Your task to perform on an android device: Search for "amazon basics triple a" on amazon, select the first entry, and add it to the cart. Image 0: 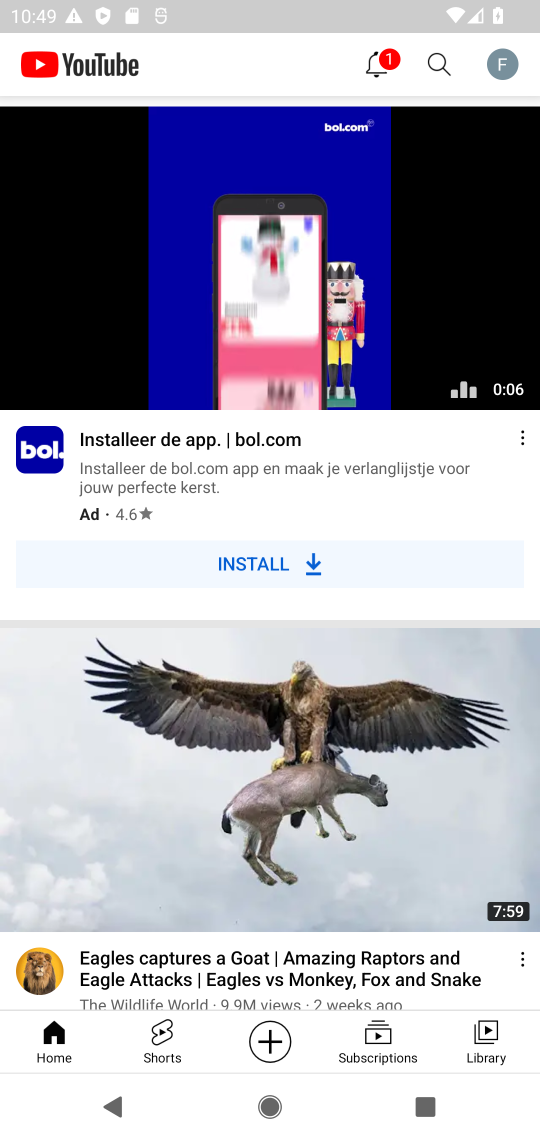
Step 0: press home button
Your task to perform on an android device: Search for "amazon basics triple a" on amazon, select the first entry, and add it to the cart. Image 1: 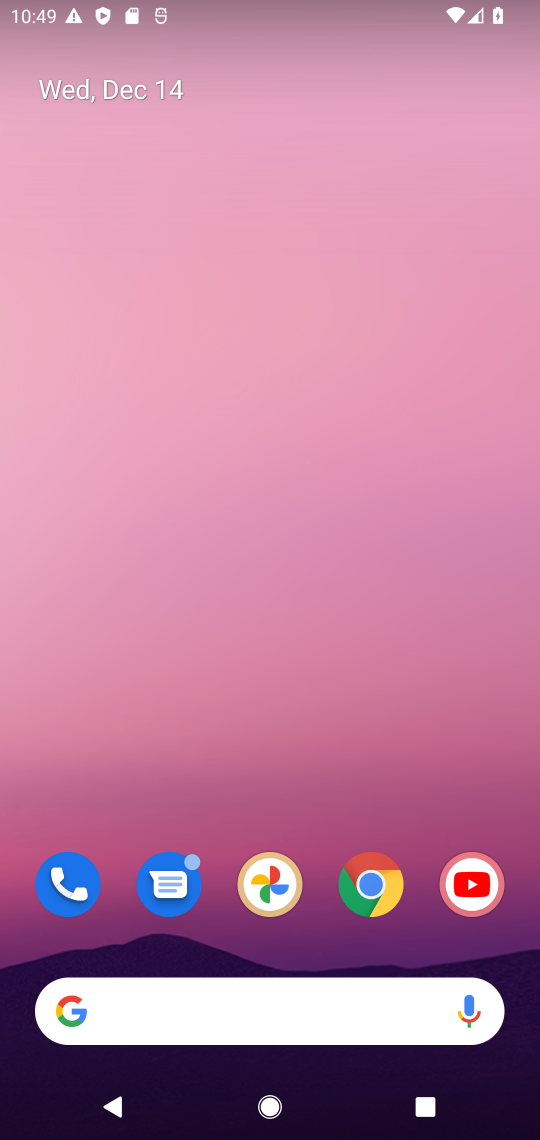
Step 1: click (368, 889)
Your task to perform on an android device: Search for "amazon basics triple a" on amazon, select the first entry, and add it to the cart. Image 2: 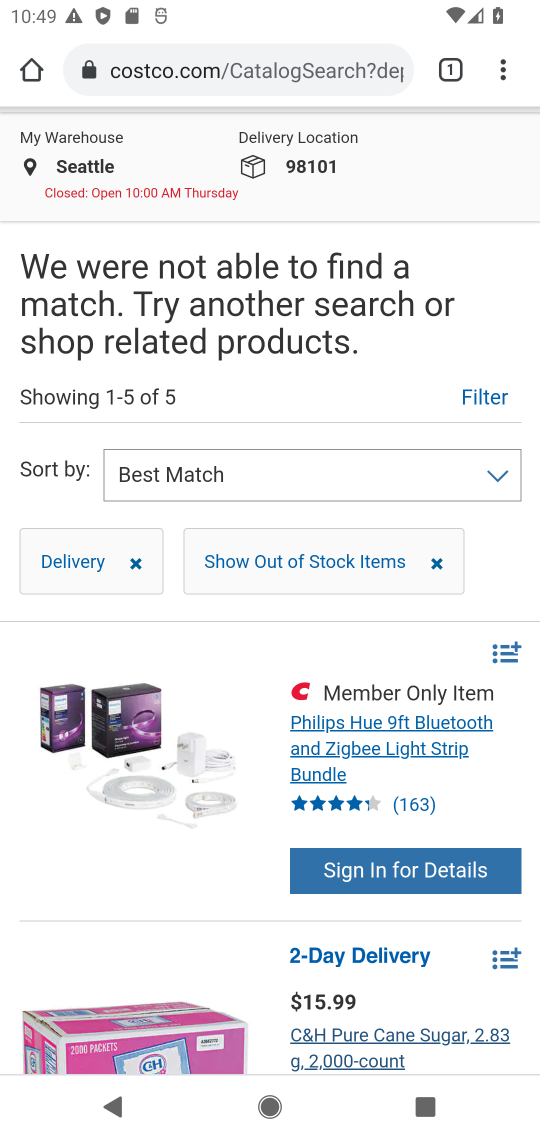
Step 2: click (180, 73)
Your task to perform on an android device: Search for "amazon basics triple a" on amazon, select the first entry, and add it to the cart. Image 3: 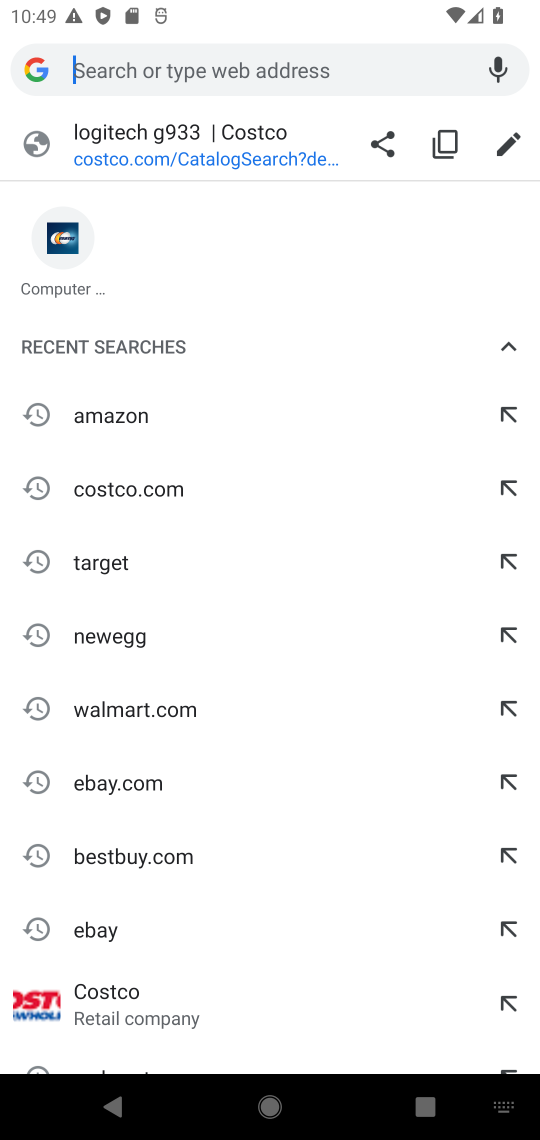
Step 3: type "amazon"
Your task to perform on an android device: Search for "amazon basics triple a" on amazon, select the first entry, and add it to the cart. Image 4: 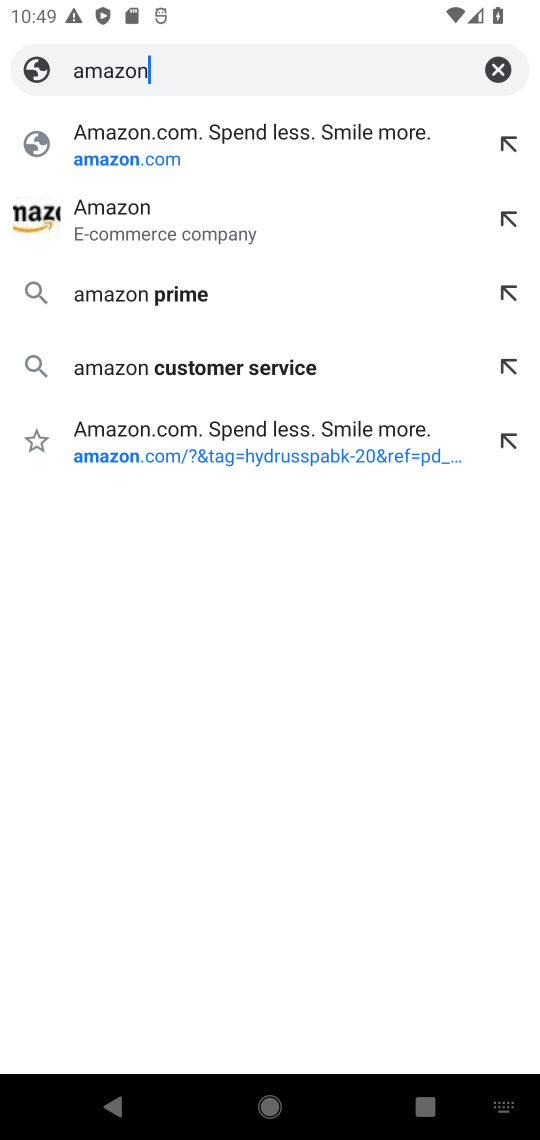
Step 4: click (233, 151)
Your task to perform on an android device: Search for "amazon basics triple a" on amazon, select the first entry, and add it to the cart. Image 5: 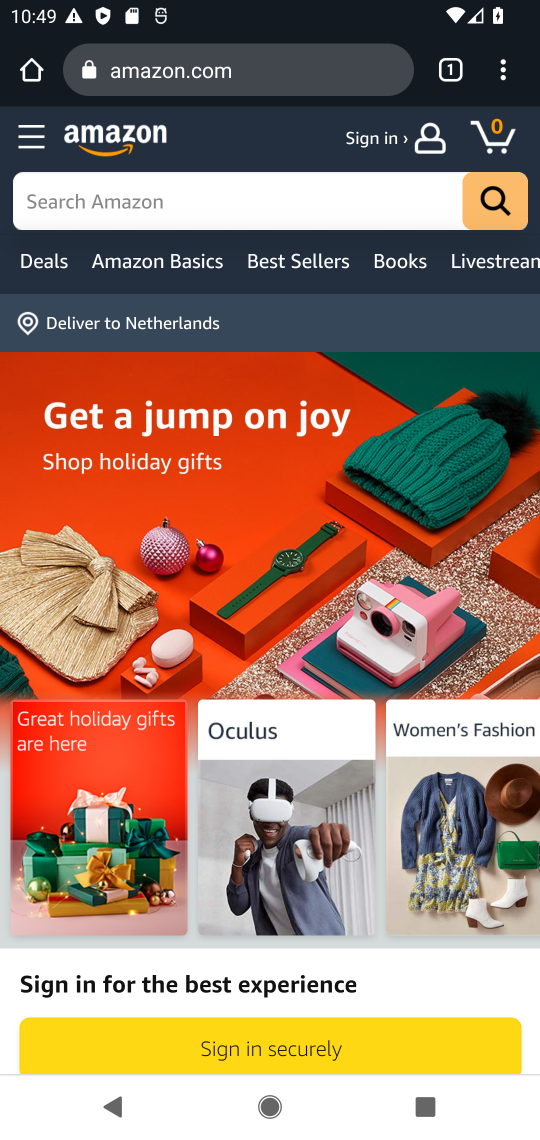
Step 5: click (314, 180)
Your task to perform on an android device: Search for "amazon basics triple a" on amazon, select the first entry, and add it to the cart. Image 6: 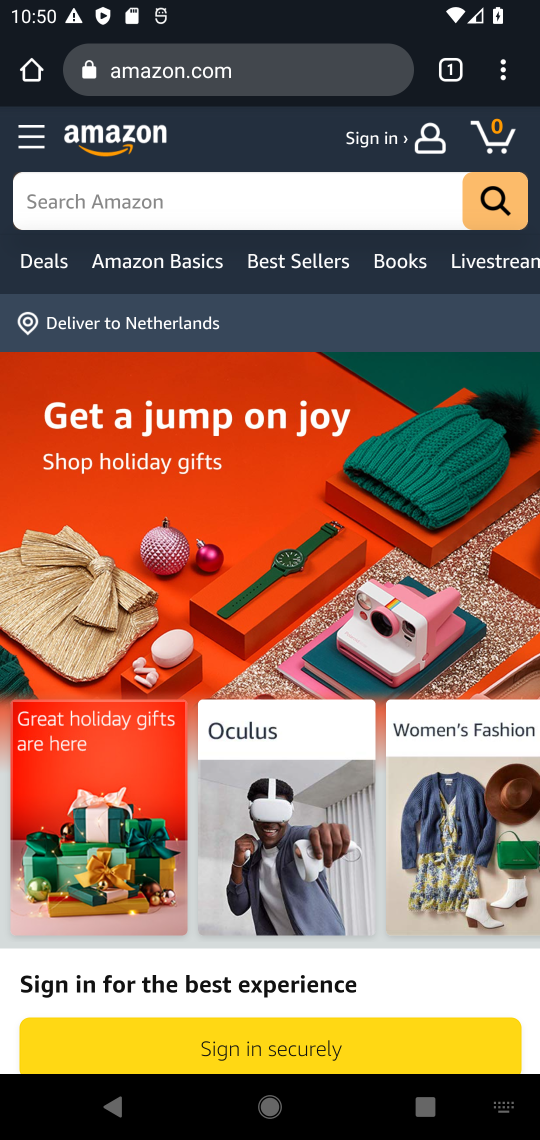
Step 6: type "amazon basics triple a"
Your task to perform on an android device: Search for "amazon basics triple a" on amazon, select the first entry, and add it to the cart. Image 7: 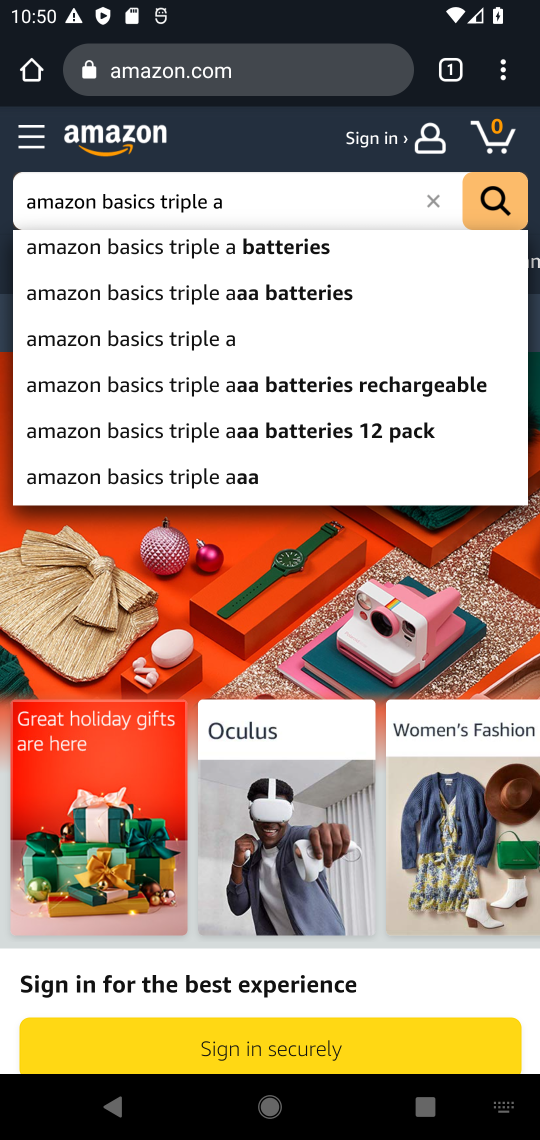
Step 7: click (495, 217)
Your task to perform on an android device: Search for "amazon basics triple a" on amazon, select the first entry, and add it to the cart. Image 8: 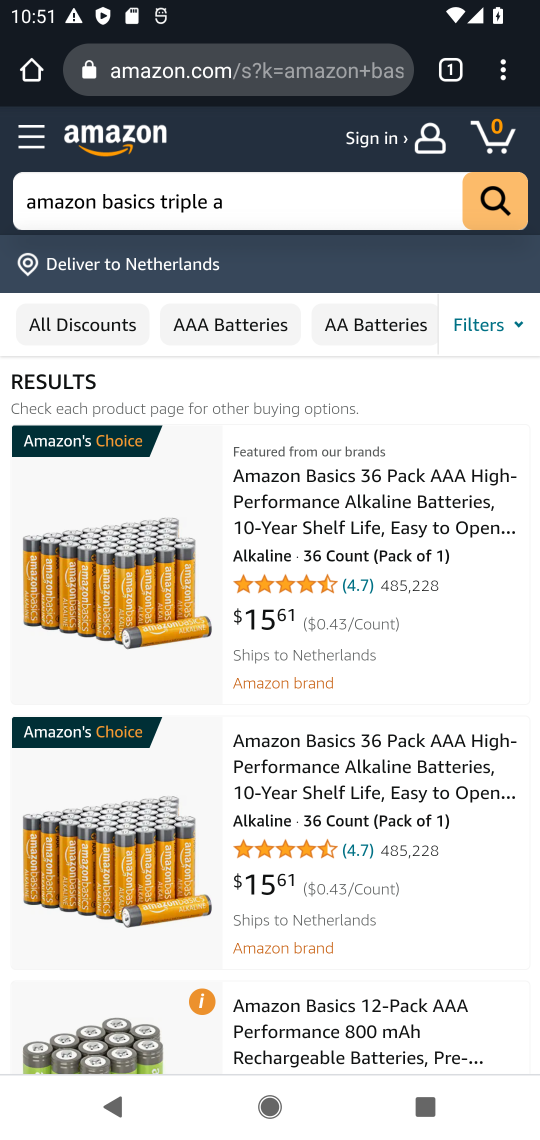
Step 8: click (317, 495)
Your task to perform on an android device: Search for "amazon basics triple a" on amazon, select the first entry, and add it to the cart. Image 9: 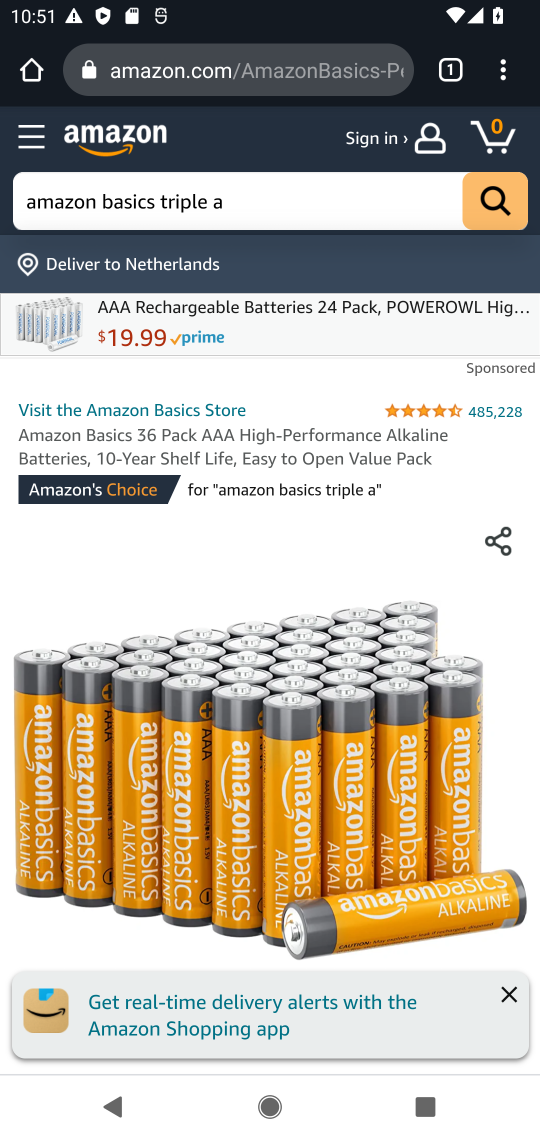
Step 9: drag from (258, 661) to (265, 6)
Your task to perform on an android device: Search for "amazon basics triple a" on amazon, select the first entry, and add it to the cart. Image 10: 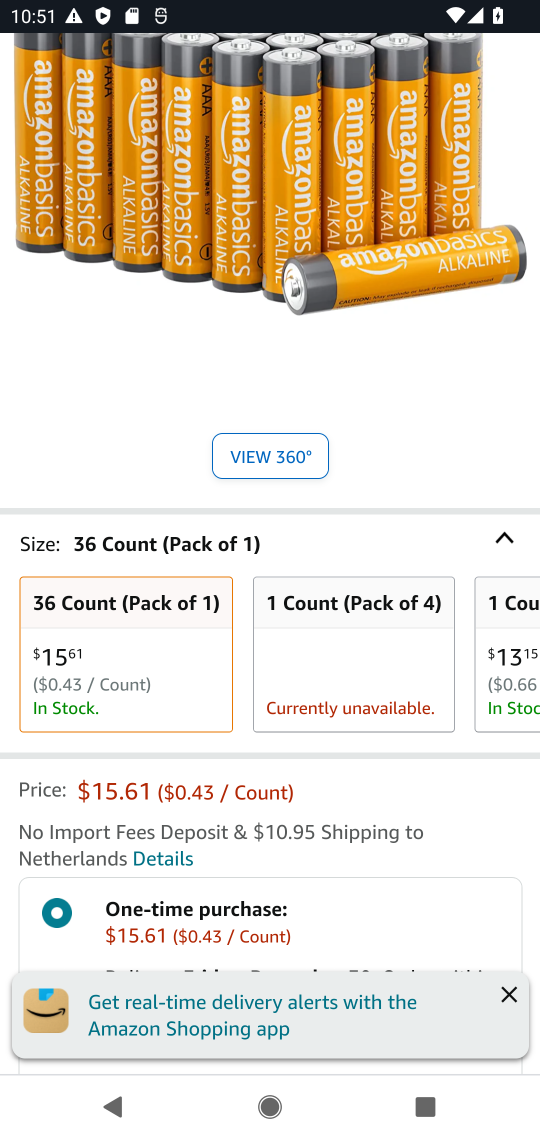
Step 10: drag from (281, 381) to (312, 70)
Your task to perform on an android device: Search for "amazon basics triple a" on amazon, select the first entry, and add it to the cart. Image 11: 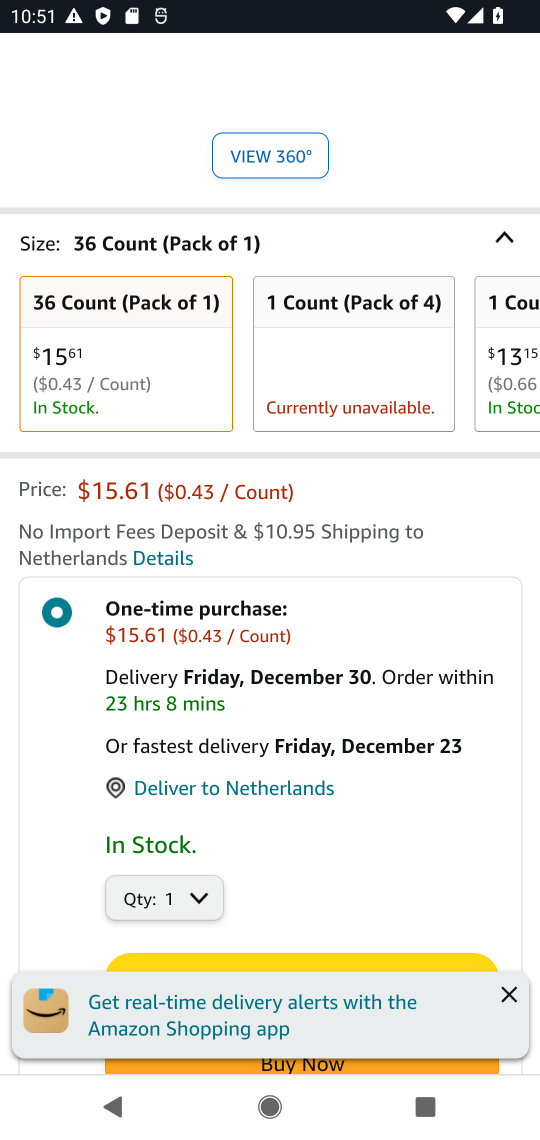
Step 11: click (512, 999)
Your task to perform on an android device: Search for "amazon basics triple a" on amazon, select the first entry, and add it to the cart. Image 12: 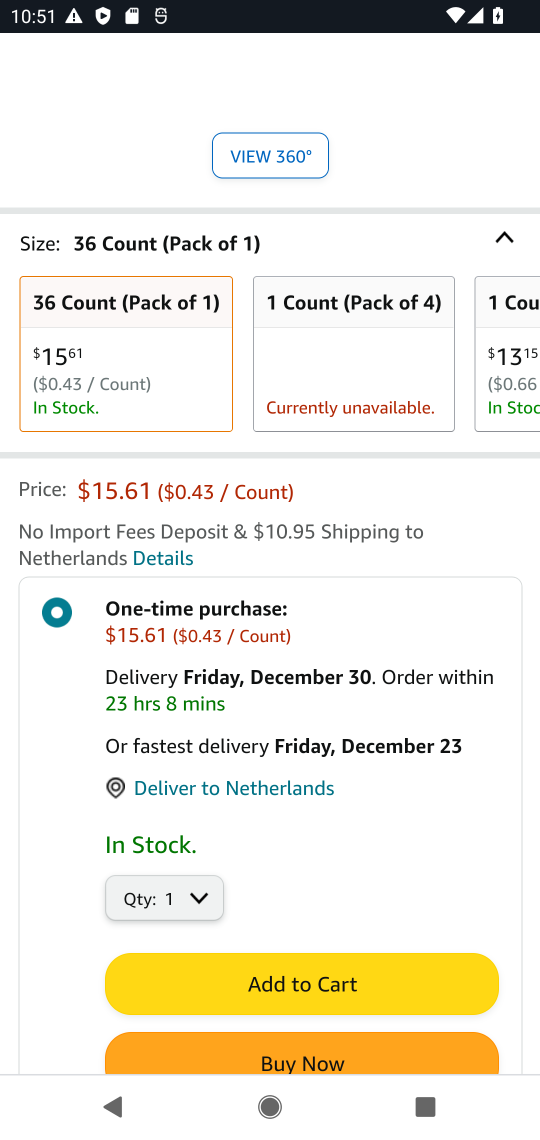
Step 12: click (390, 993)
Your task to perform on an android device: Search for "amazon basics triple a" on amazon, select the first entry, and add it to the cart. Image 13: 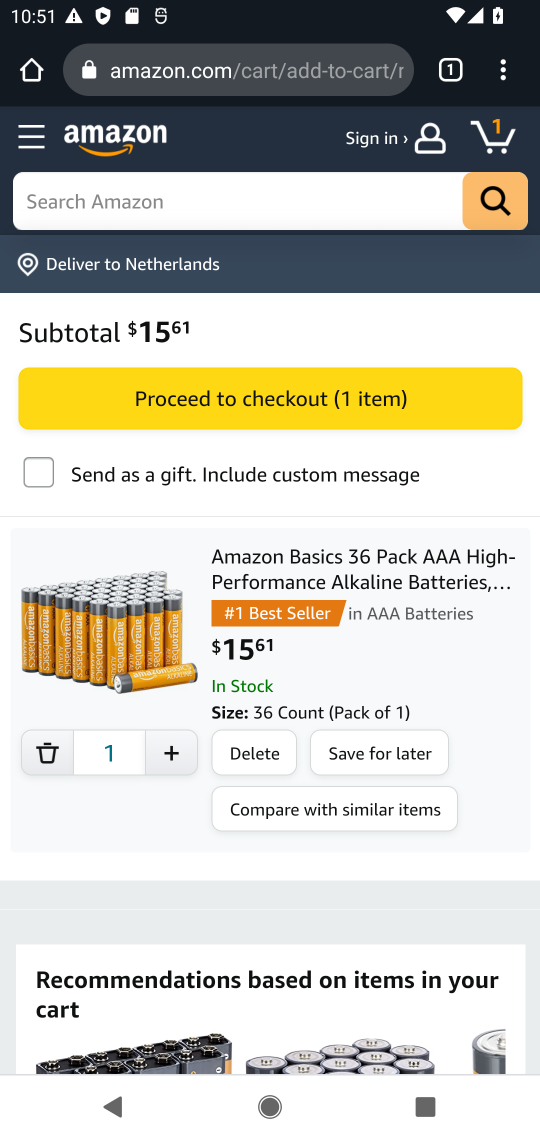
Step 13: click (315, 413)
Your task to perform on an android device: Search for "amazon basics triple a" on amazon, select the first entry, and add it to the cart. Image 14: 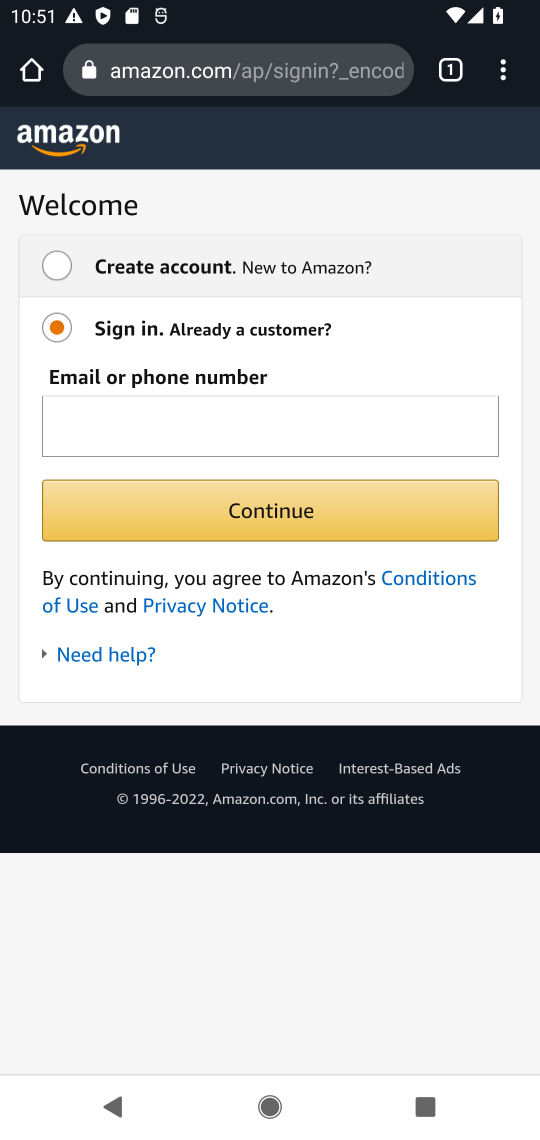
Step 14: task complete